Your task to perform on an android device: When is my next meeting? Image 0: 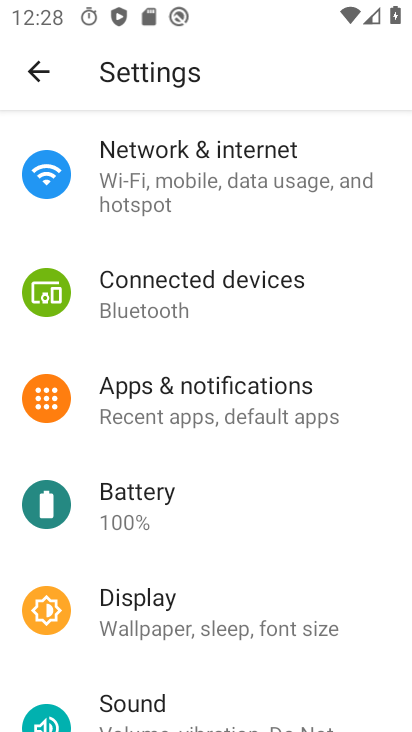
Step 0: press home button
Your task to perform on an android device: When is my next meeting? Image 1: 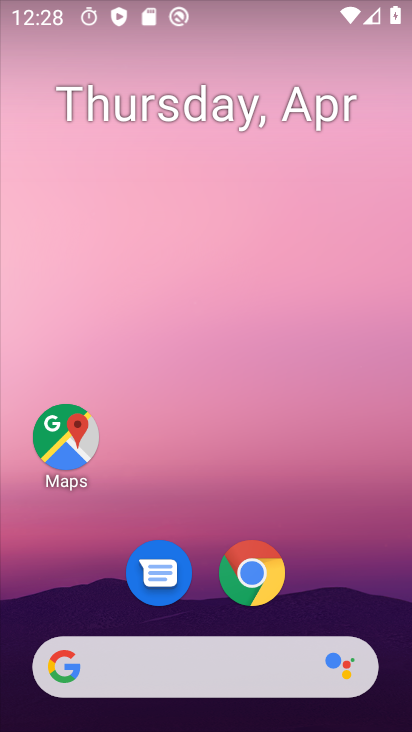
Step 1: drag from (371, 601) to (349, 123)
Your task to perform on an android device: When is my next meeting? Image 2: 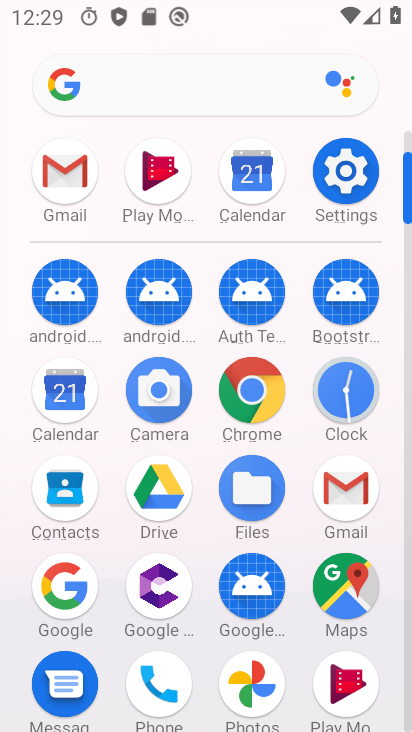
Step 2: click (51, 395)
Your task to perform on an android device: When is my next meeting? Image 3: 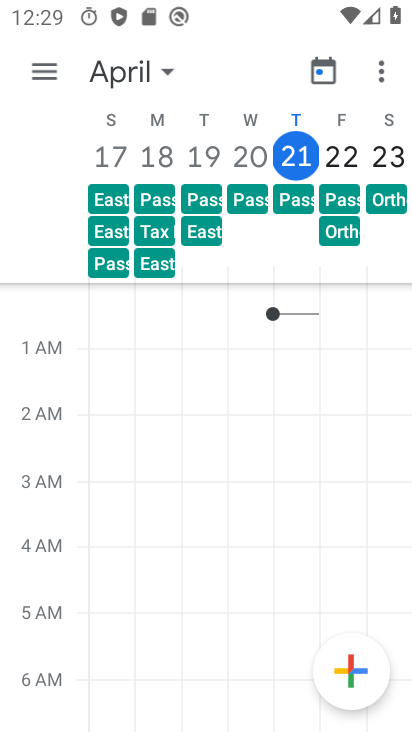
Step 3: click (48, 67)
Your task to perform on an android device: When is my next meeting? Image 4: 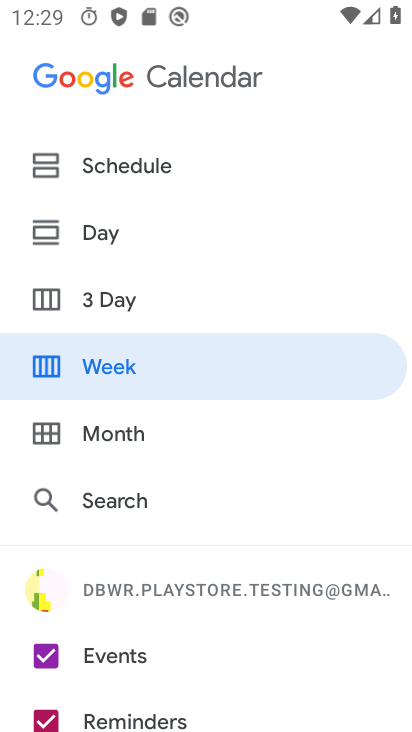
Step 4: drag from (269, 485) to (277, 244)
Your task to perform on an android device: When is my next meeting? Image 5: 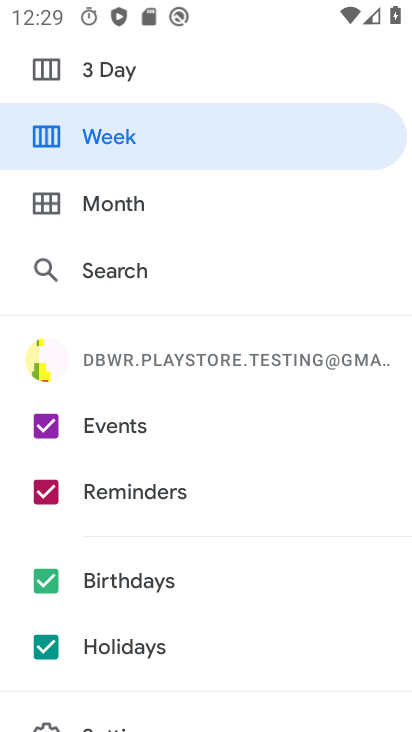
Step 5: drag from (319, 454) to (318, 313)
Your task to perform on an android device: When is my next meeting? Image 6: 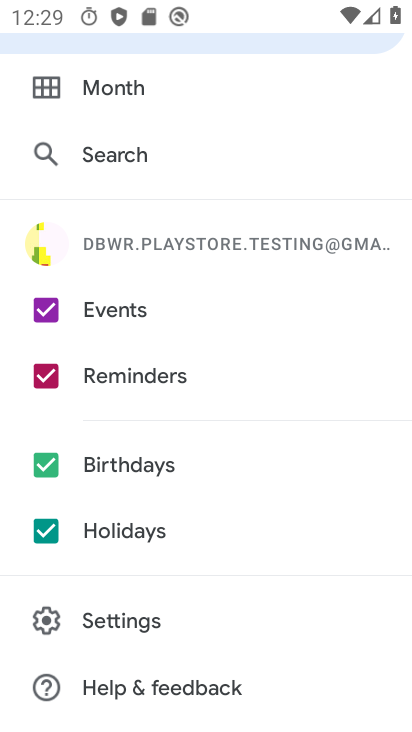
Step 6: drag from (291, 655) to (296, 313)
Your task to perform on an android device: When is my next meeting? Image 7: 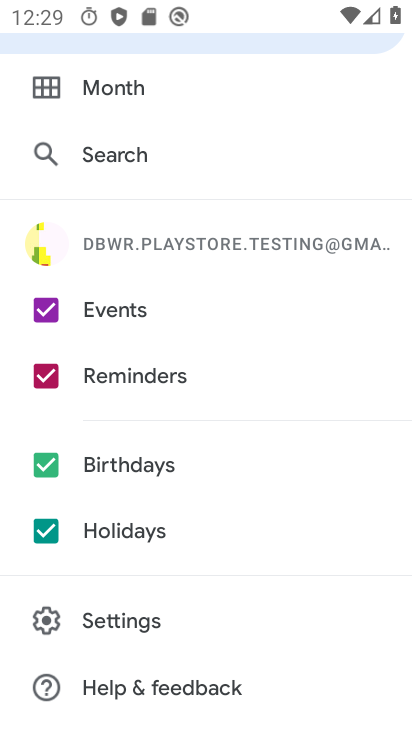
Step 7: drag from (296, 569) to (299, 344)
Your task to perform on an android device: When is my next meeting? Image 8: 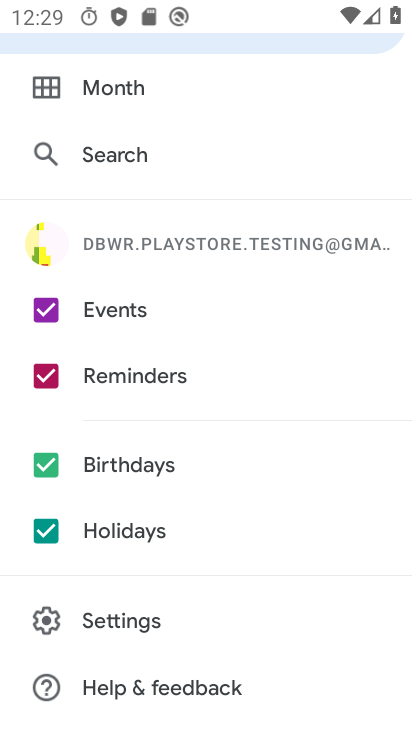
Step 8: drag from (293, 317) to (282, 539)
Your task to perform on an android device: When is my next meeting? Image 9: 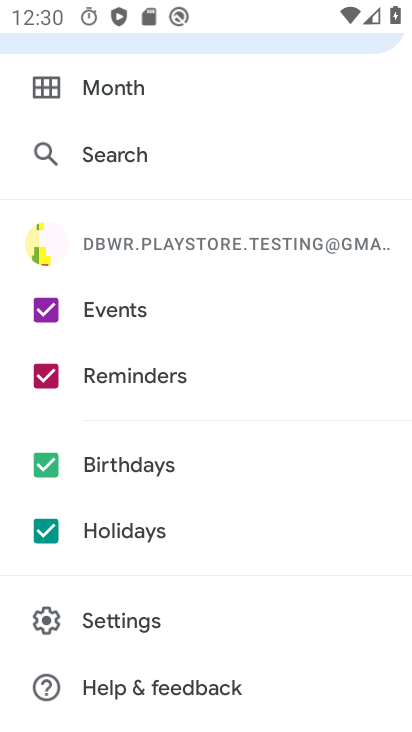
Step 9: drag from (243, 138) to (240, 504)
Your task to perform on an android device: When is my next meeting? Image 10: 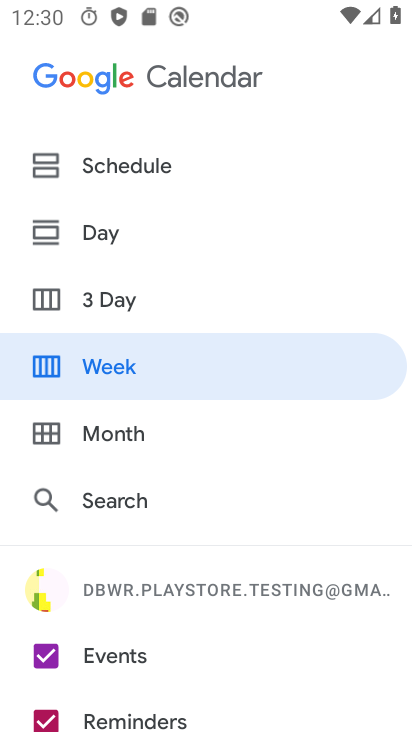
Step 10: click (241, 529)
Your task to perform on an android device: When is my next meeting? Image 11: 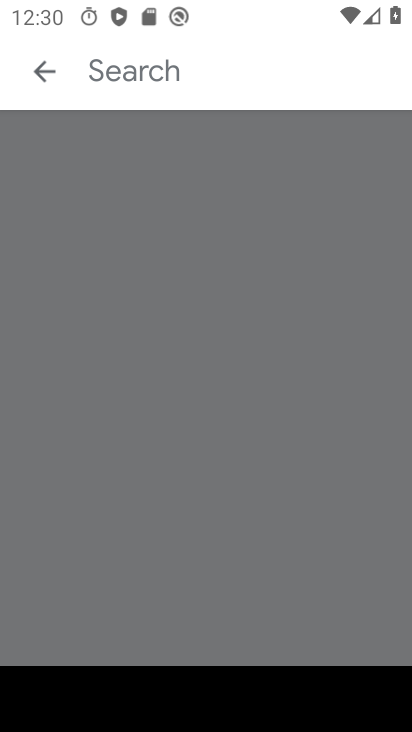
Step 11: click (47, 71)
Your task to perform on an android device: When is my next meeting? Image 12: 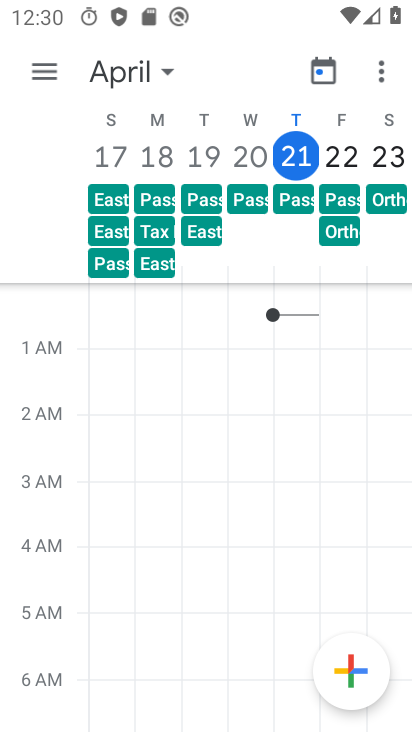
Step 12: click (39, 71)
Your task to perform on an android device: When is my next meeting? Image 13: 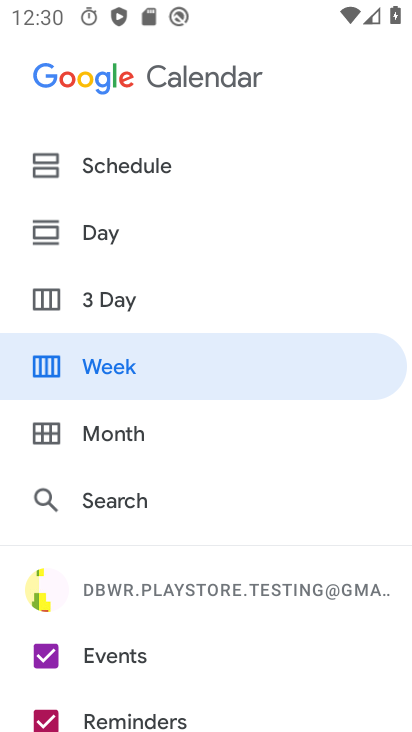
Step 13: drag from (215, 696) to (175, 321)
Your task to perform on an android device: When is my next meeting? Image 14: 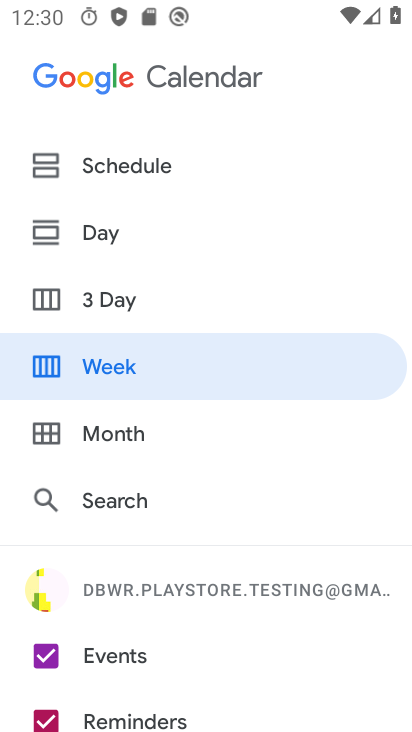
Step 14: drag from (209, 640) to (249, 333)
Your task to perform on an android device: When is my next meeting? Image 15: 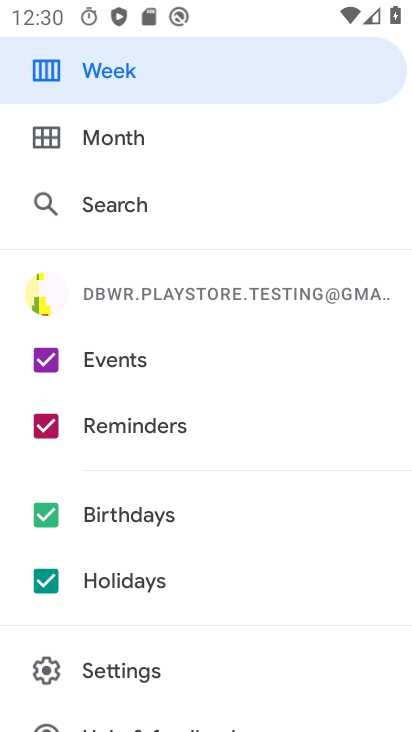
Step 15: drag from (274, 498) to (287, 396)
Your task to perform on an android device: When is my next meeting? Image 16: 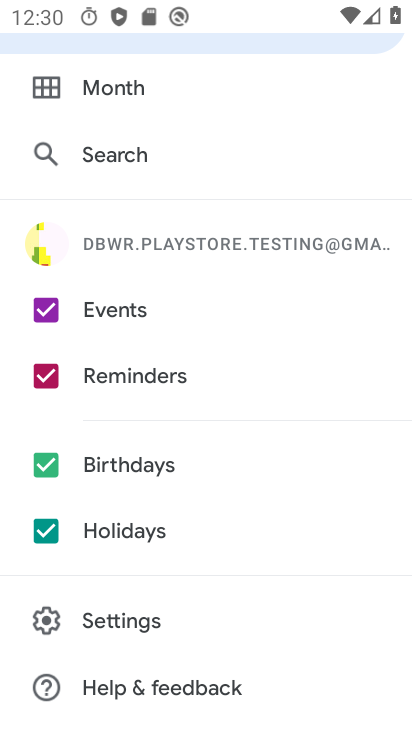
Step 16: click (41, 531)
Your task to perform on an android device: When is my next meeting? Image 17: 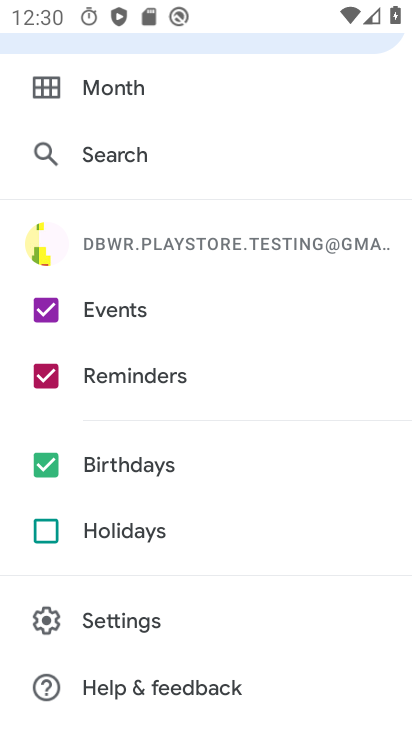
Step 17: click (40, 456)
Your task to perform on an android device: When is my next meeting? Image 18: 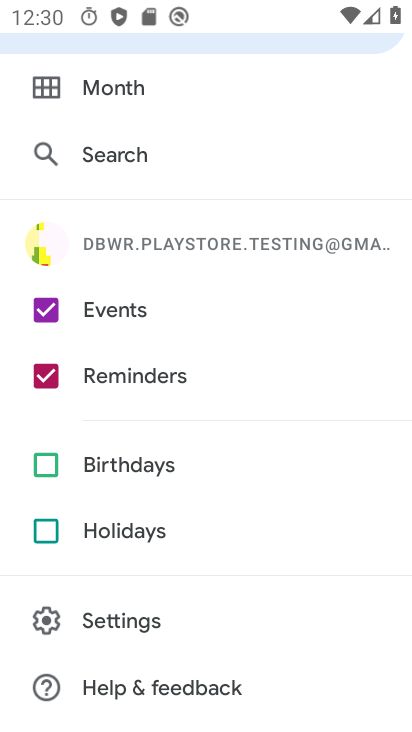
Step 18: click (37, 382)
Your task to perform on an android device: When is my next meeting? Image 19: 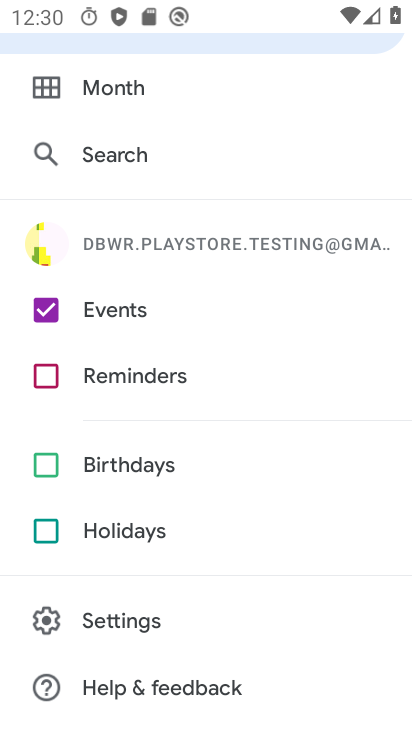
Step 19: task complete